Your task to perform on an android device: Go to Google Image 0: 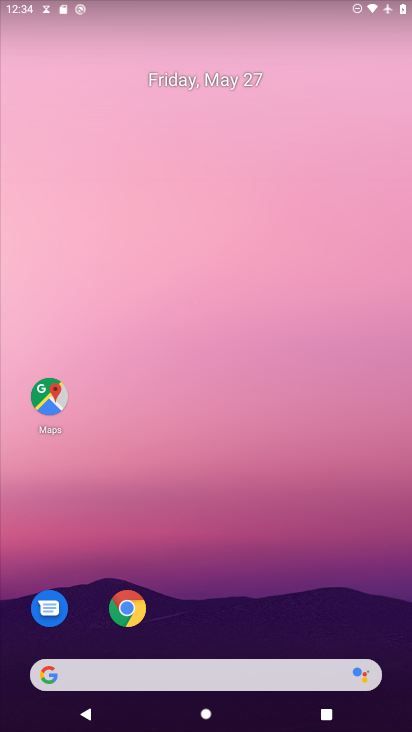
Step 0: click (258, 145)
Your task to perform on an android device: Go to Google Image 1: 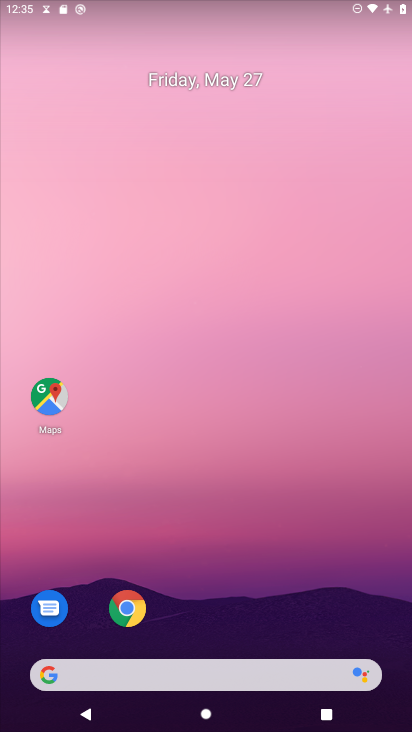
Step 1: drag from (232, 619) to (326, 120)
Your task to perform on an android device: Go to Google Image 2: 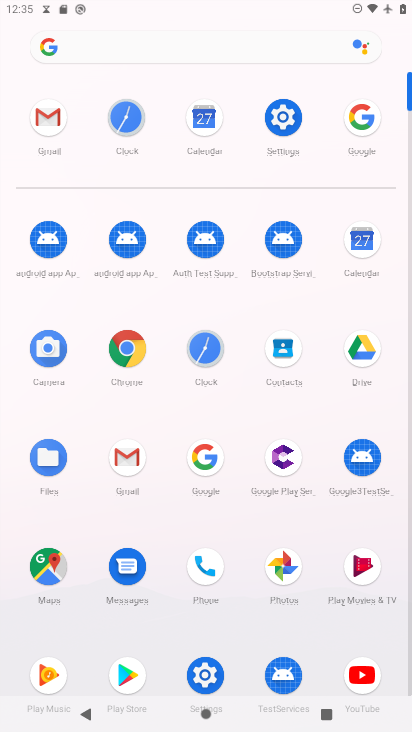
Step 2: click (212, 451)
Your task to perform on an android device: Go to Google Image 3: 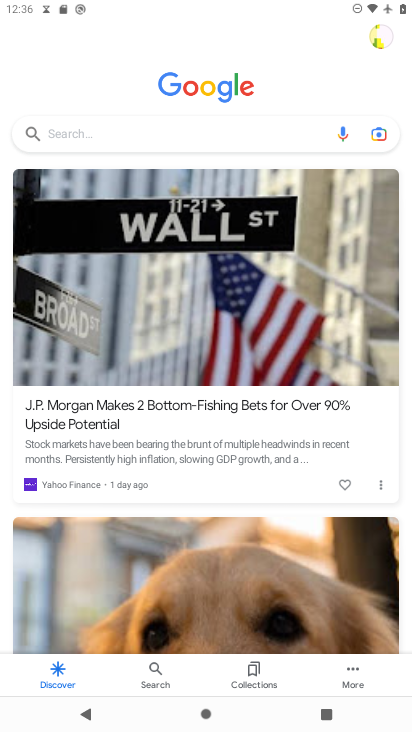
Step 3: task complete